Your task to perform on an android device: Turn off the flashlight Image 0: 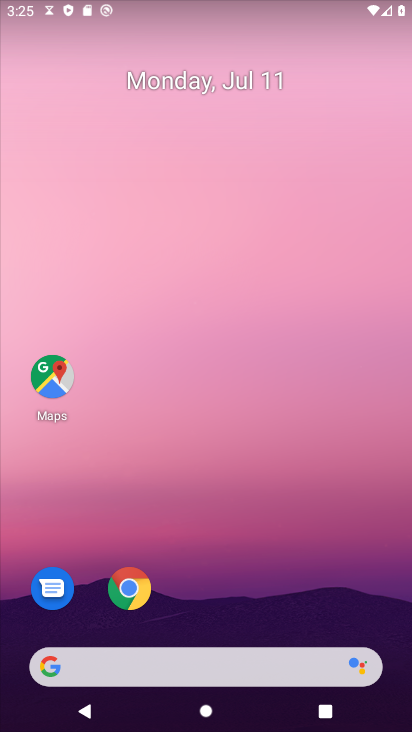
Step 0: drag from (312, 572) to (248, 115)
Your task to perform on an android device: Turn off the flashlight Image 1: 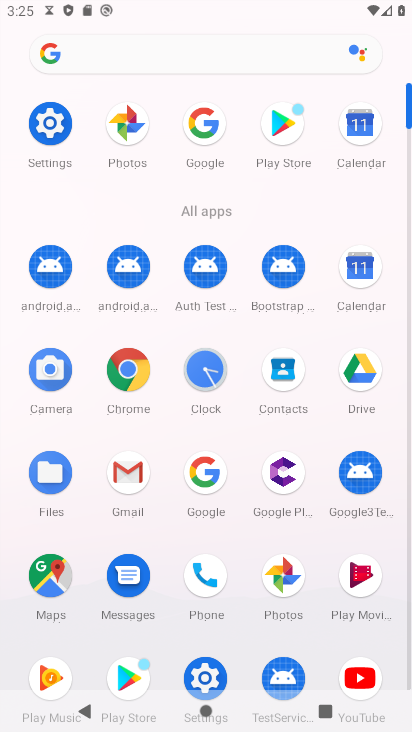
Step 1: click (53, 114)
Your task to perform on an android device: Turn off the flashlight Image 2: 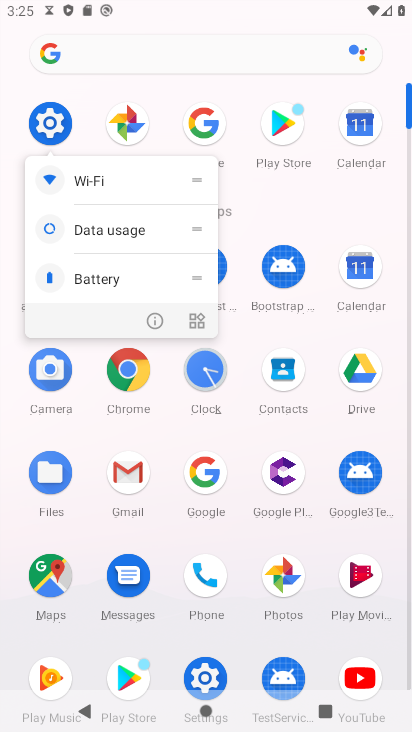
Step 2: click (52, 114)
Your task to perform on an android device: Turn off the flashlight Image 3: 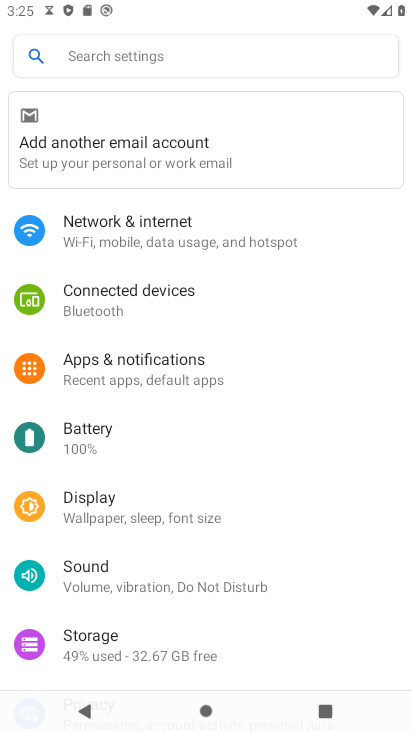
Step 3: task complete